Your task to perform on an android device: set default search engine in the chrome app Image 0: 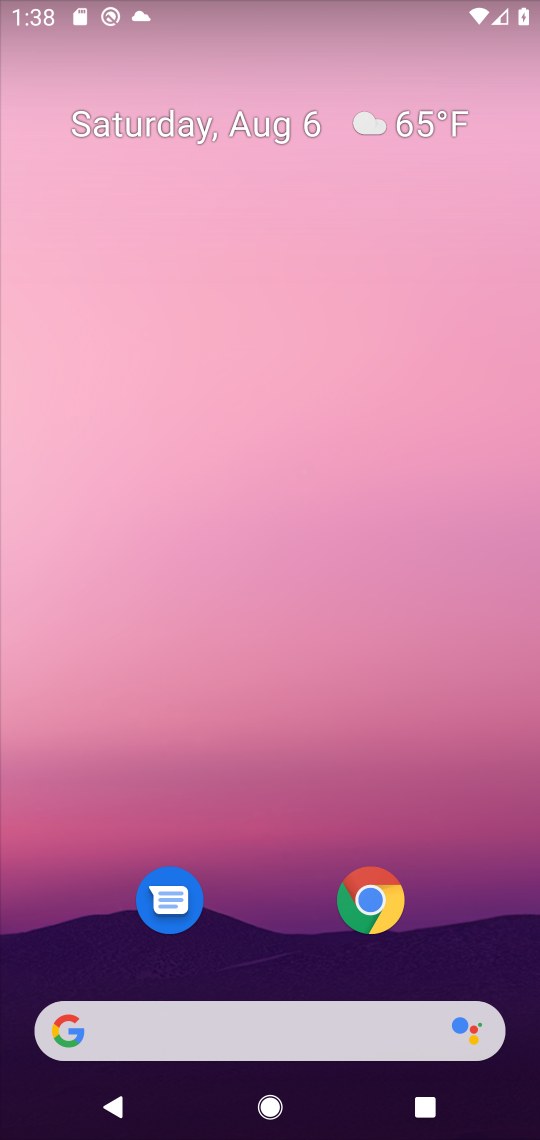
Step 0: press home button
Your task to perform on an android device: set default search engine in the chrome app Image 1: 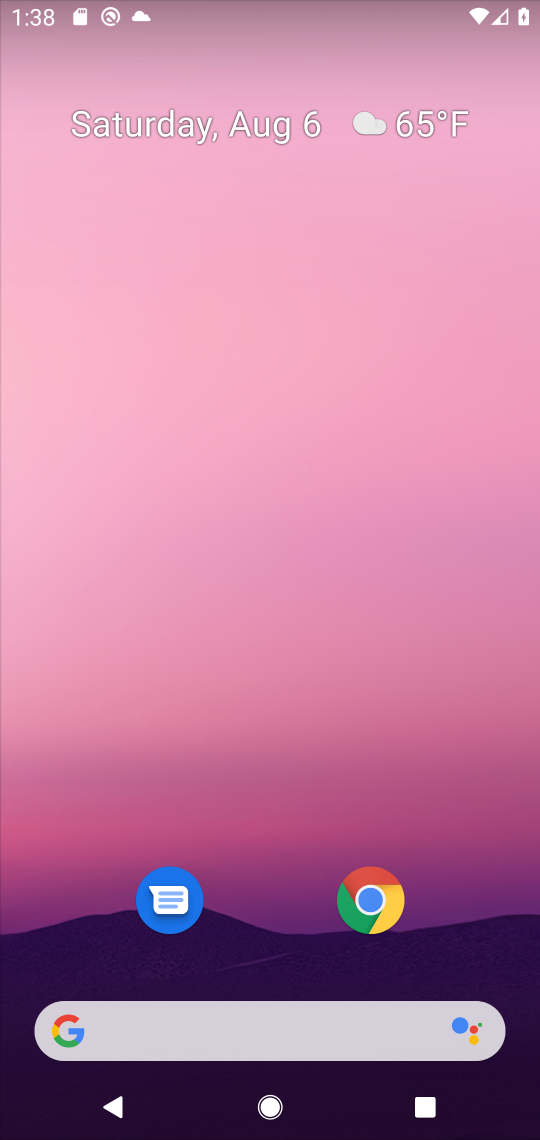
Step 1: drag from (277, 524) to (534, 1053)
Your task to perform on an android device: set default search engine in the chrome app Image 2: 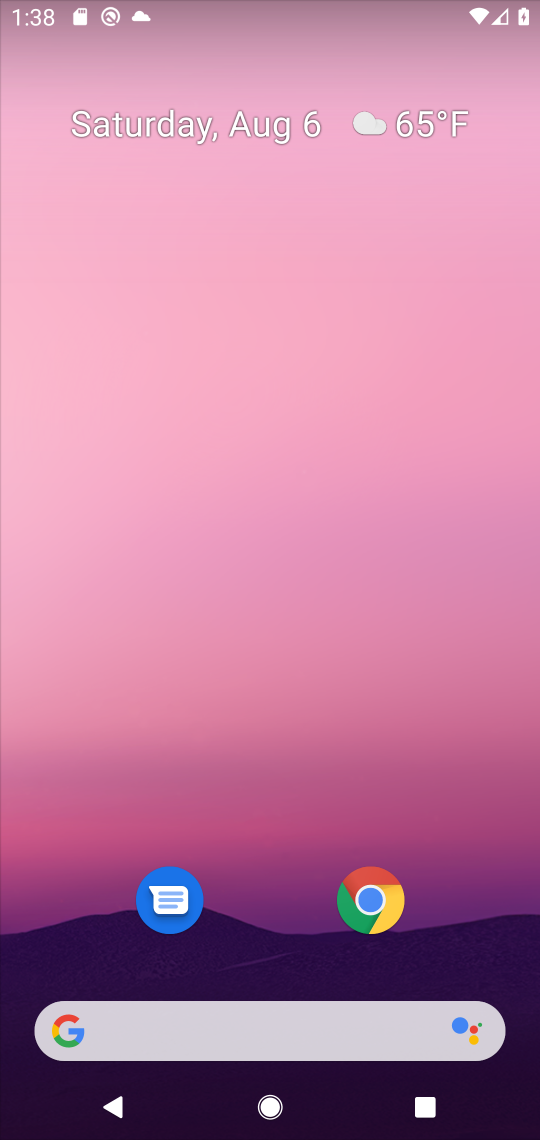
Step 2: drag from (250, 329) to (242, 103)
Your task to perform on an android device: set default search engine in the chrome app Image 3: 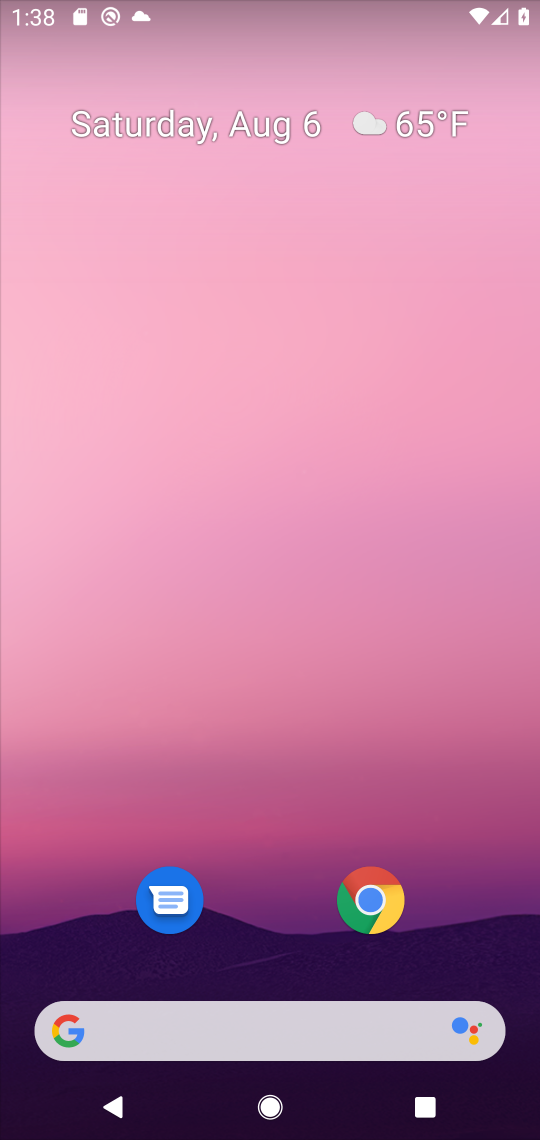
Step 3: drag from (288, 799) to (257, 1106)
Your task to perform on an android device: set default search engine in the chrome app Image 4: 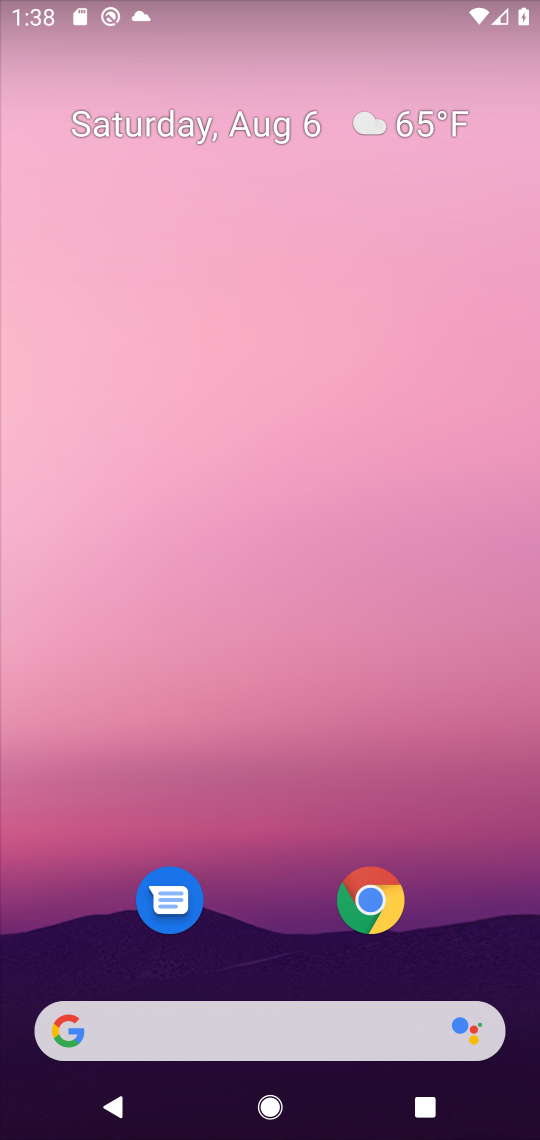
Step 4: drag from (269, 951) to (279, 1)
Your task to perform on an android device: set default search engine in the chrome app Image 5: 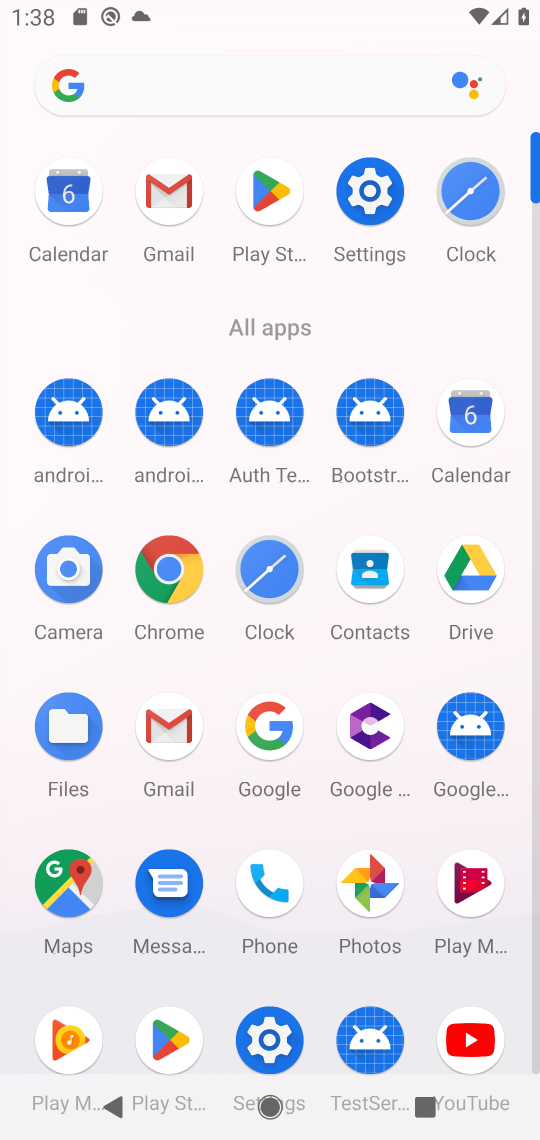
Step 5: click (175, 576)
Your task to perform on an android device: set default search engine in the chrome app Image 6: 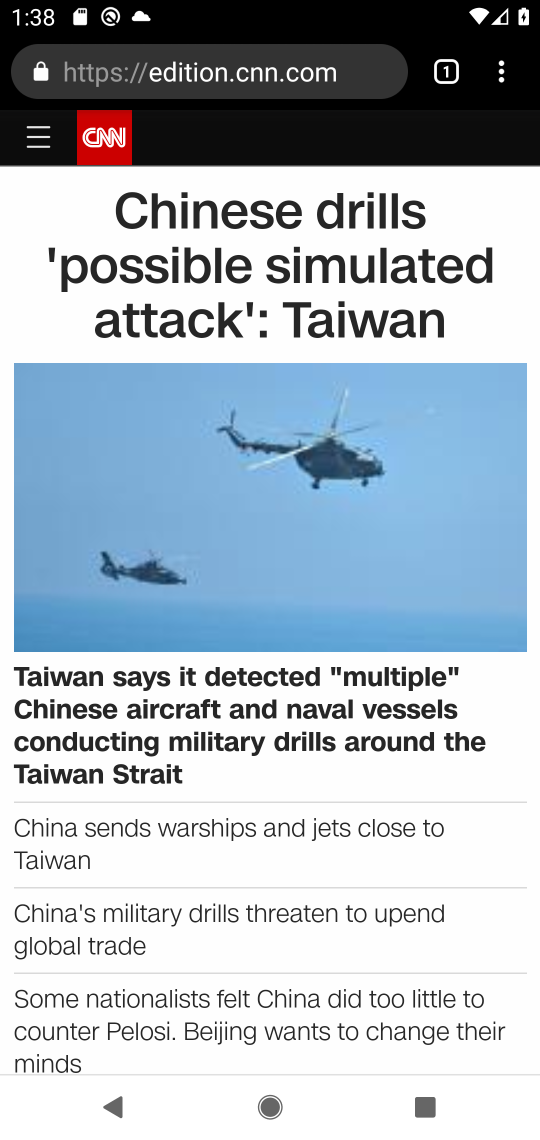
Step 6: click (504, 74)
Your task to perform on an android device: set default search engine in the chrome app Image 7: 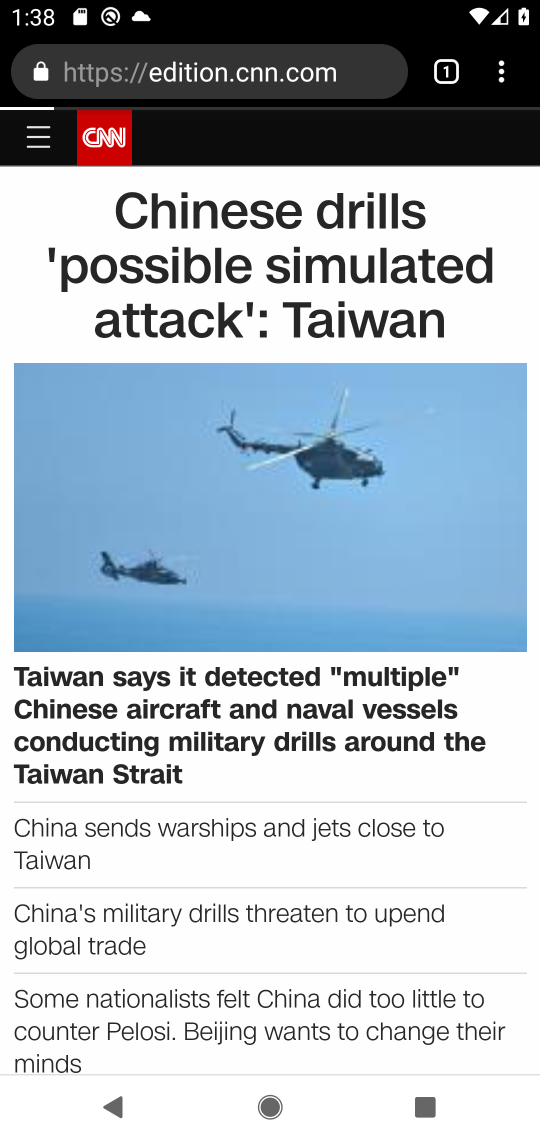
Step 7: drag from (501, 72) to (265, 860)
Your task to perform on an android device: set default search engine in the chrome app Image 8: 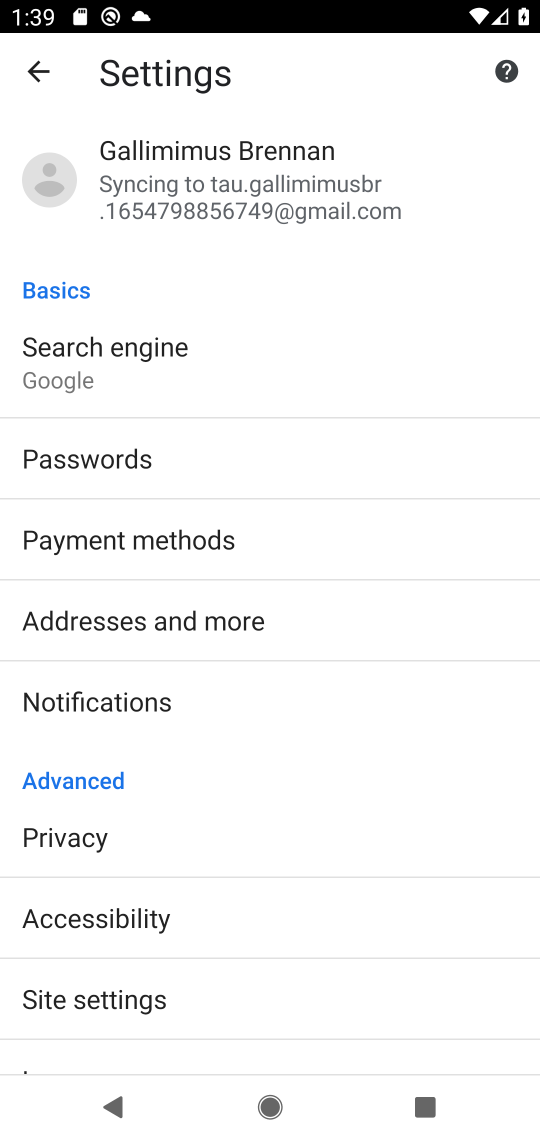
Step 8: click (119, 360)
Your task to perform on an android device: set default search engine in the chrome app Image 9: 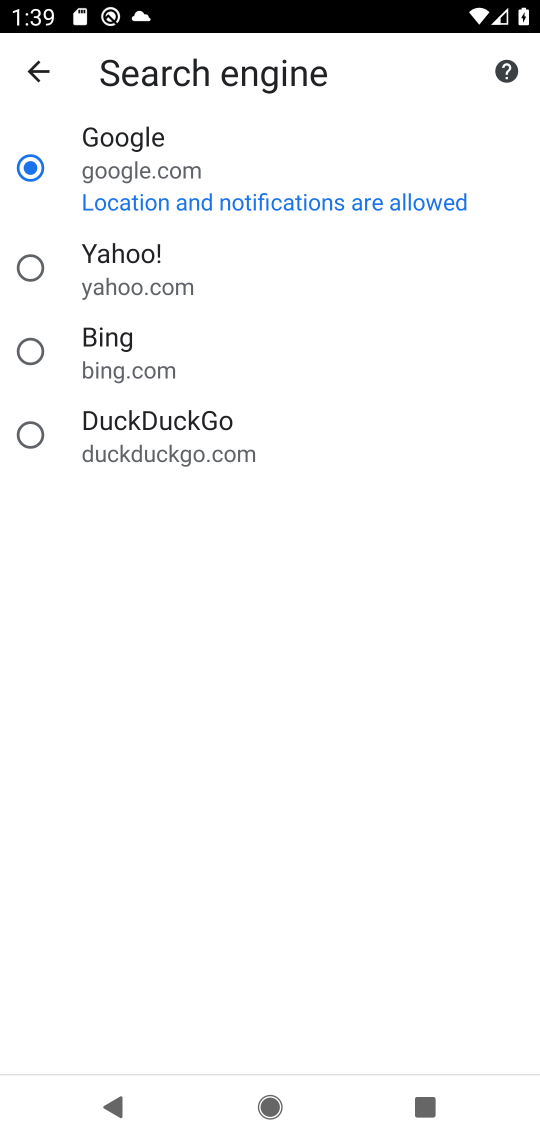
Step 9: task complete